Your task to perform on an android device: Is it going to rain this weekend? Image 0: 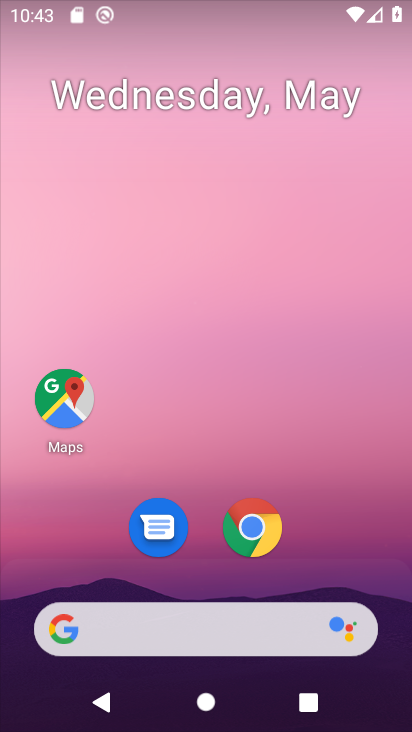
Step 0: drag from (332, 571) to (264, 60)
Your task to perform on an android device: Is it going to rain this weekend? Image 1: 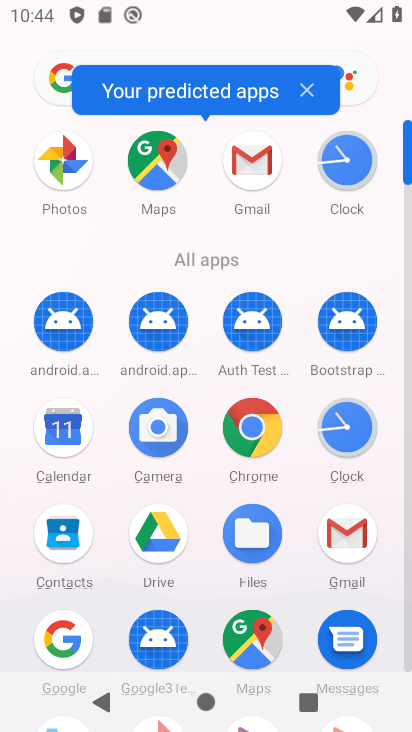
Step 1: click (56, 637)
Your task to perform on an android device: Is it going to rain this weekend? Image 2: 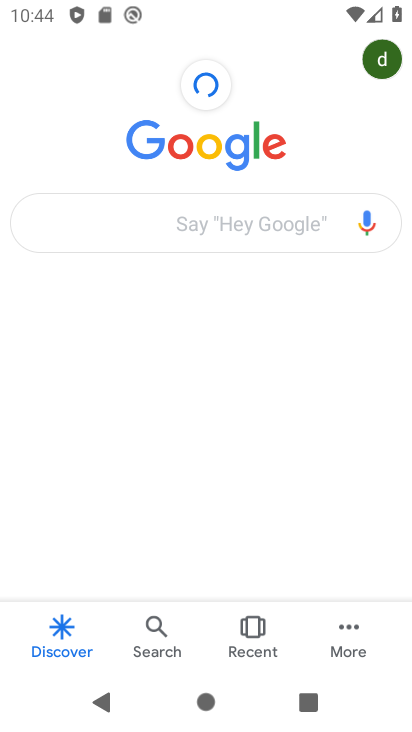
Step 2: click (177, 226)
Your task to perform on an android device: Is it going to rain this weekend? Image 3: 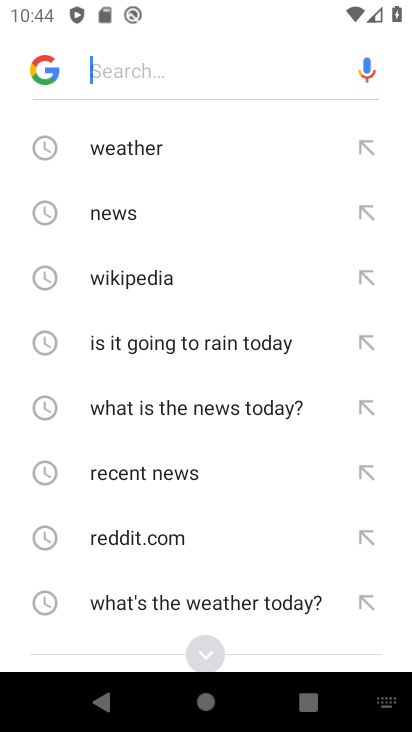
Step 3: type "rain this weekend"
Your task to perform on an android device: Is it going to rain this weekend? Image 4: 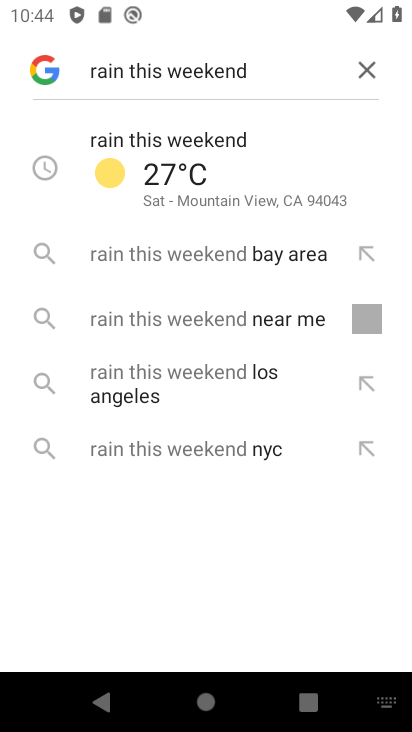
Step 4: click (185, 147)
Your task to perform on an android device: Is it going to rain this weekend? Image 5: 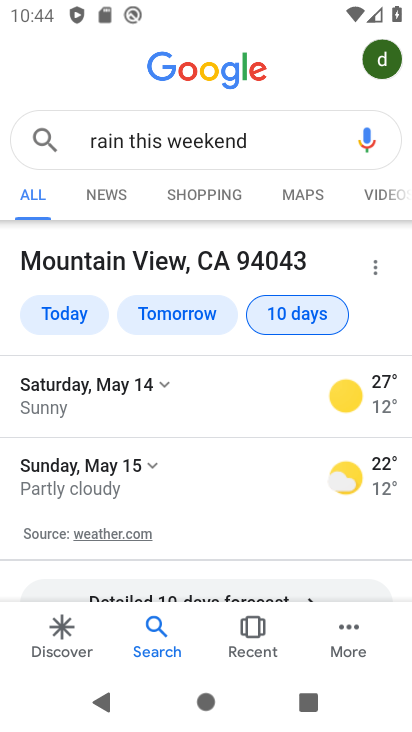
Step 5: task complete